Your task to perform on an android device: Go to settings Image 0: 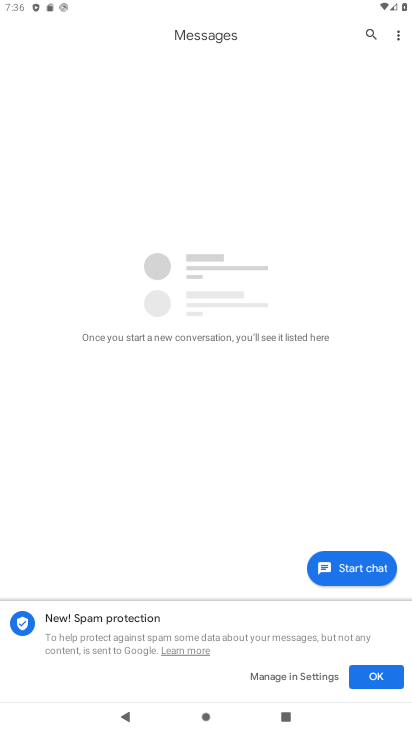
Step 0: press home button
Your task to perform on an android device: Go to settings Image 1: 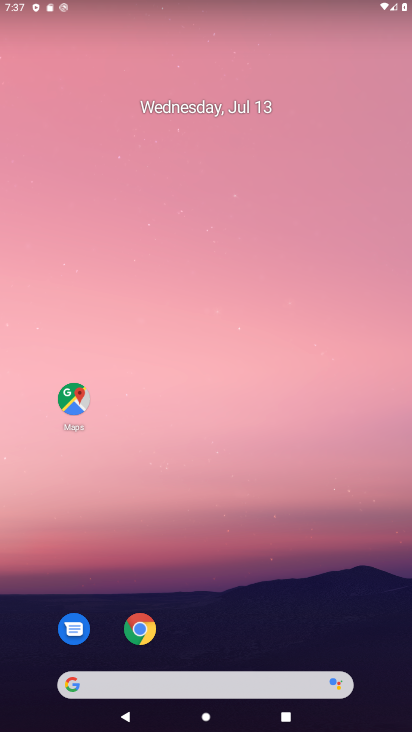
Step 1: drag from (294, 613) to (353, 163)
Your task to perform on an android device: Go to settings Image 2: 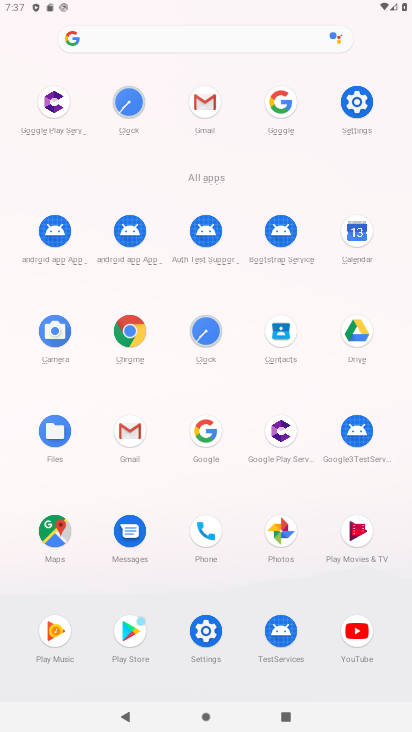
Step 2: click (358, 102)
Your task to perform on an android device: Go to settings Image 3: 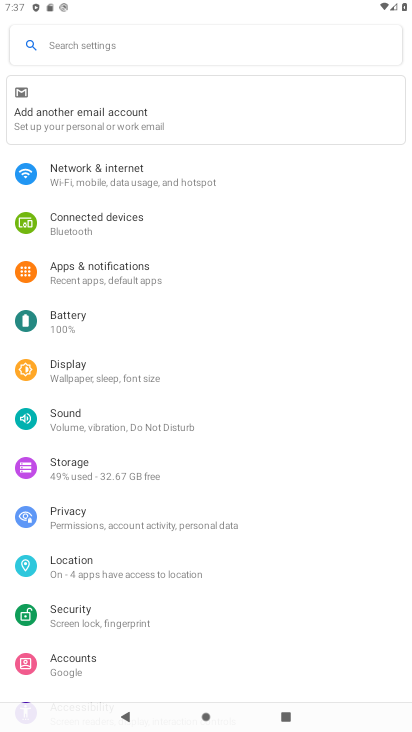
Step 3: task complete